Your task to perform on an android device: uninstall "ColorNote Notepad Notes" Image 0: 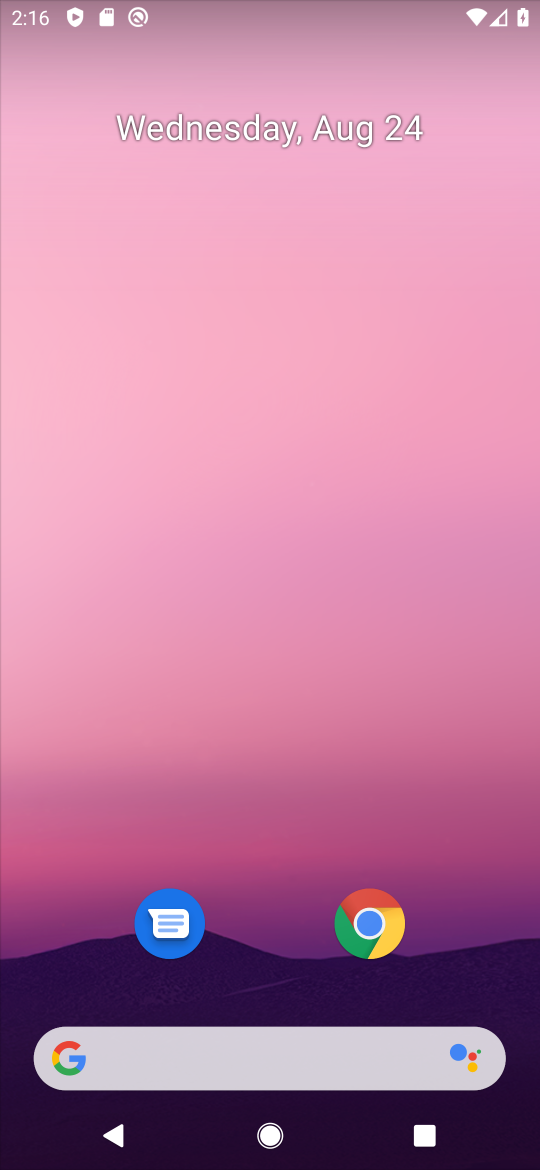
Step 0: drag from (194, 1059) to (255, 100)
Your task to perform on an android device: uninstall "ColorNote Notepad Notes" Image 1: 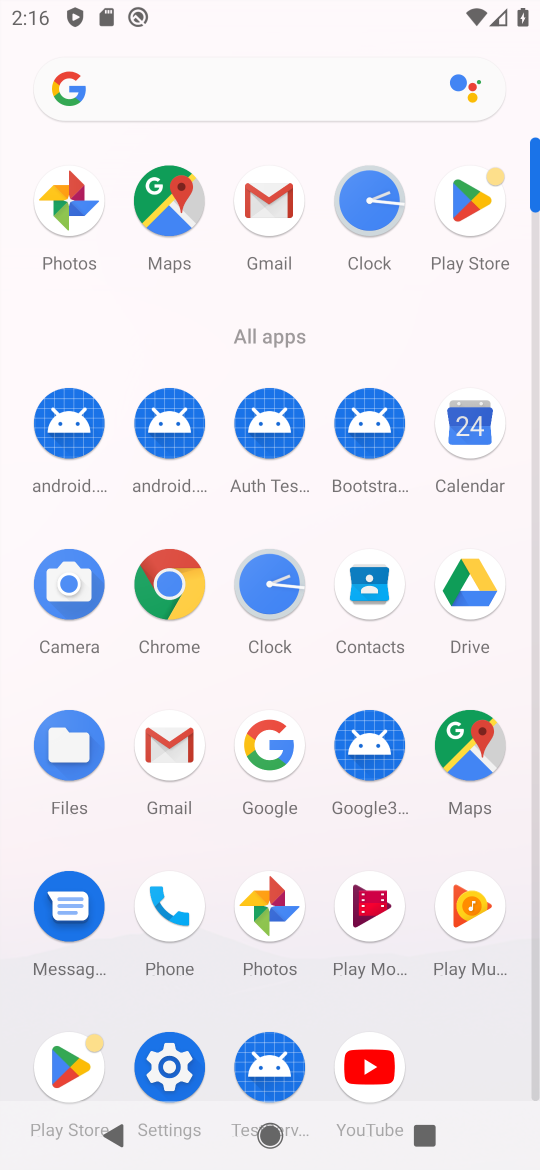
Step 1: click (466, 203)
Your task to perform on an android device: uninstall "ColorNote Notepad Notes" Image 2: 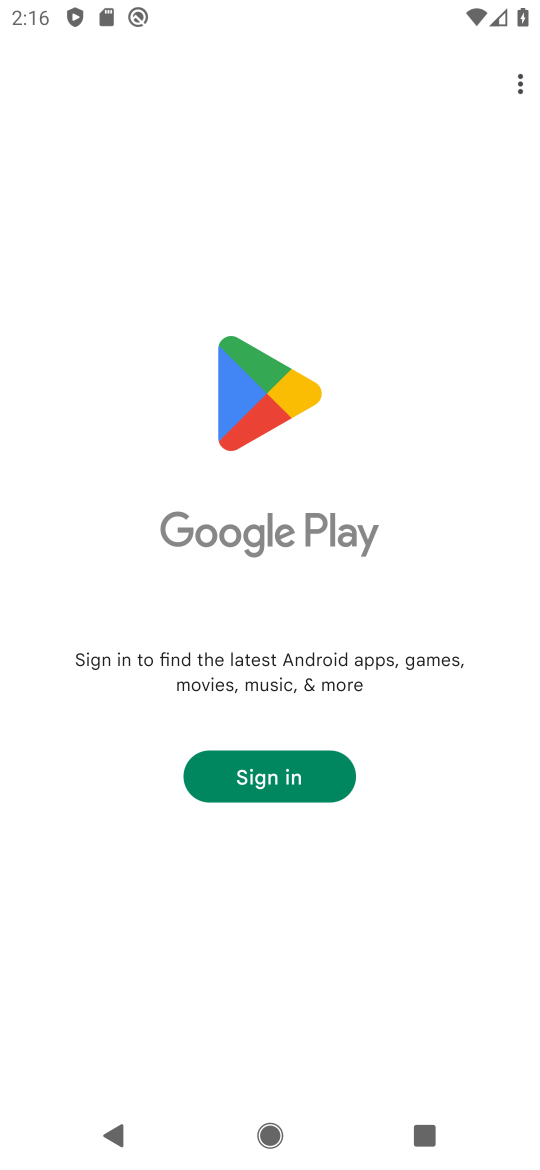
Step 2: click (264, 765)
Your task to perform on an android device: uninstall "ColorNote Notepad Notes" Image 3: 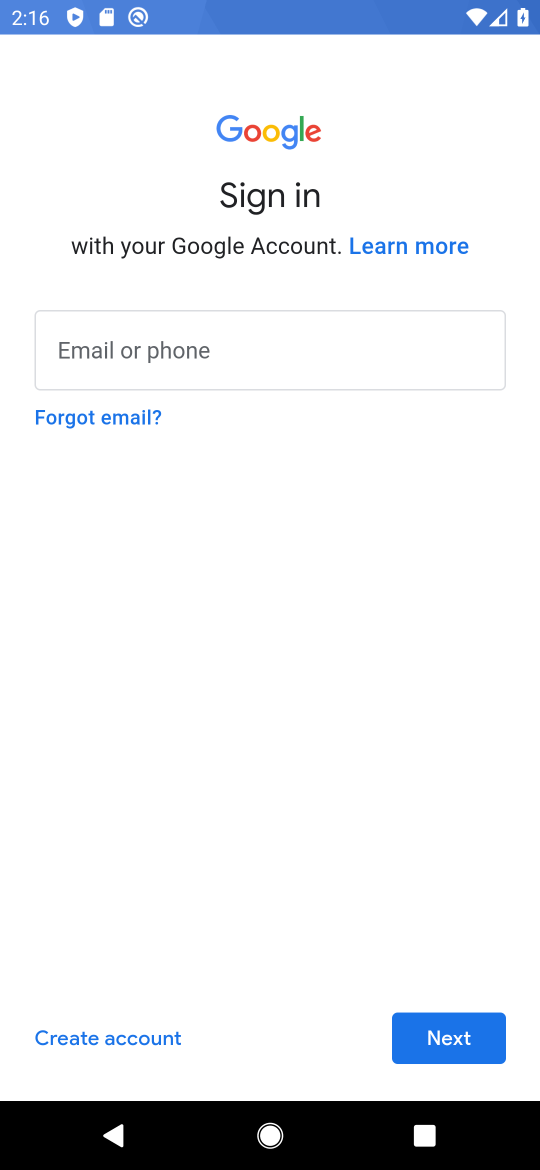
Step 3: task complete